Your task to perform on an android device: Open display settings Image 0: 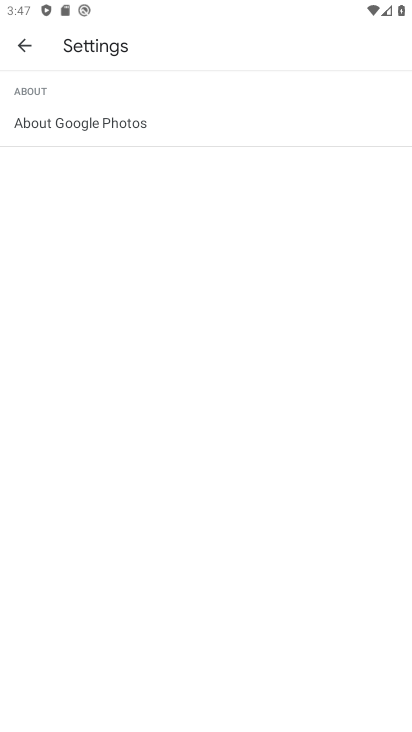
Step 0: press back button
Your task to perform on an android device: Open display settings Image 1: 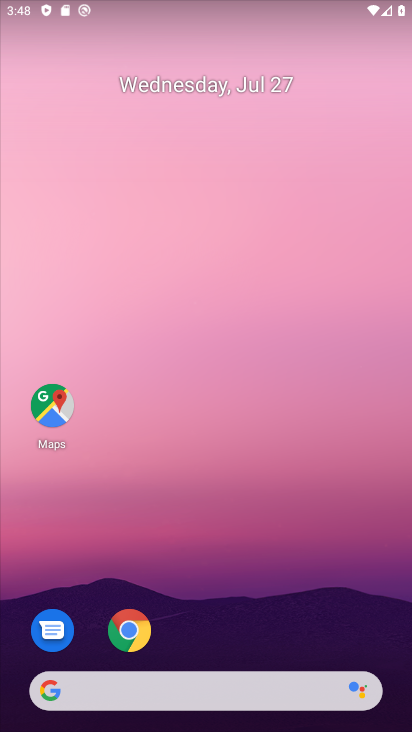
Step 1: drag from (217, 616) to (290, 1)
Your task to perform on an android device: Open display settings Image 2: 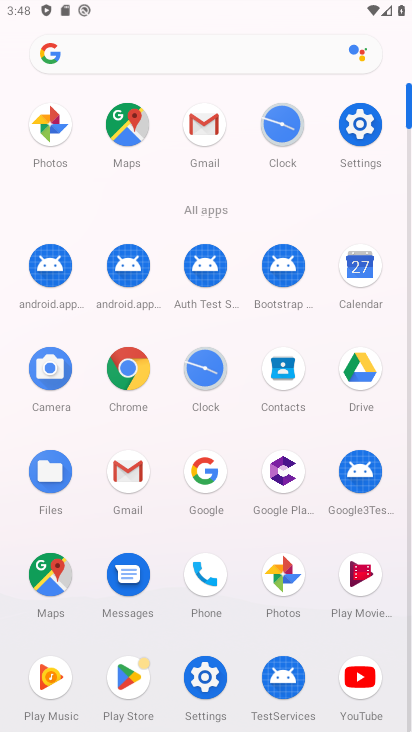
Step 2: click (351, 133)
Your task to perform on an android device: Open display settings Image 3: 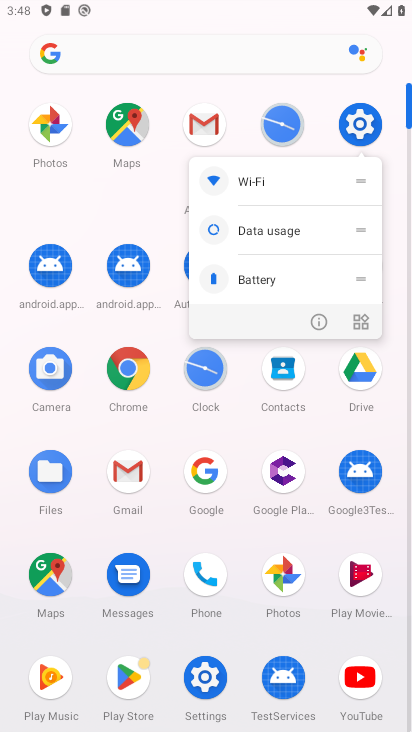
Step 3: click (355, 129)
Your task to perform on an android device: Open display settings Image 4: 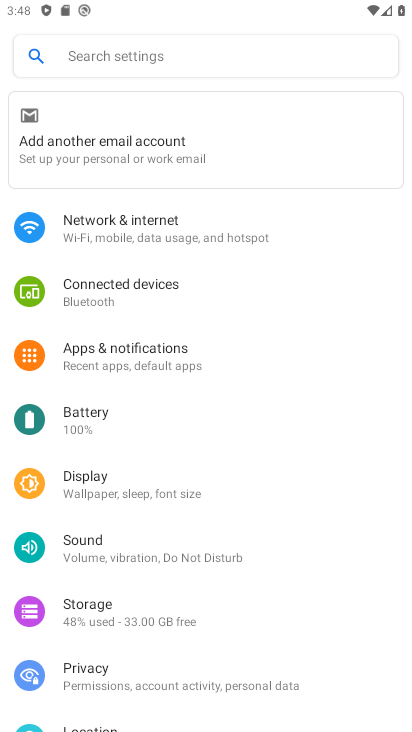
Step 4: click (76, 478)
Your task to perform on an android device: Open display settings Image 5: 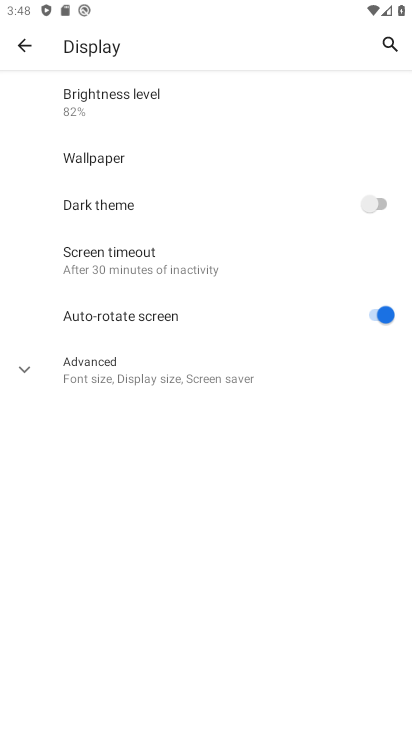
Step 5: click (113, 371)
Your task to perform on an android device: Open display settings Image 6: 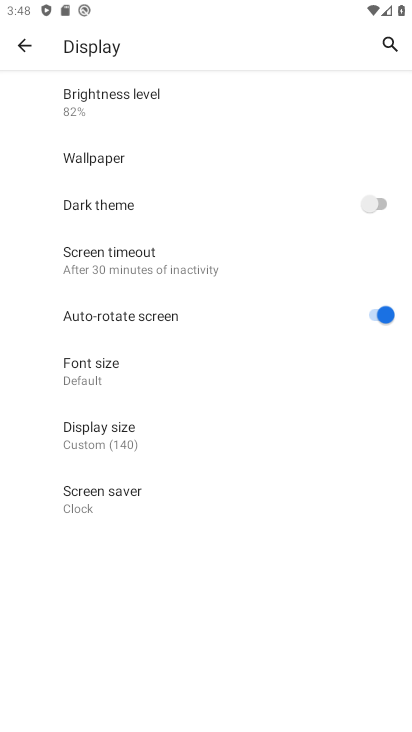
Step 6: click (92, 445)
Your task to perform on an android device: Open display settings Image 7: 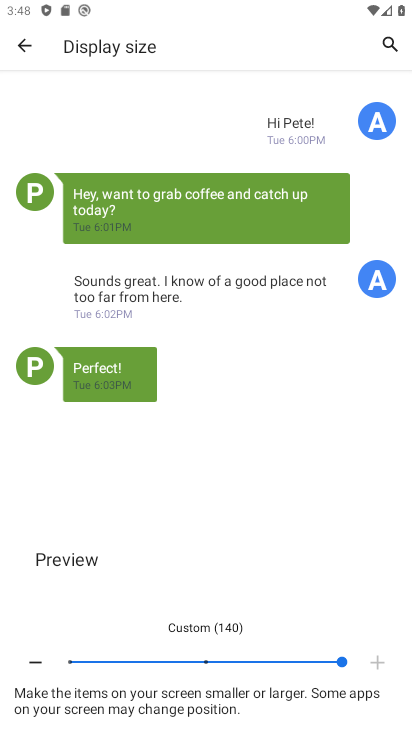
Step 7: click (208, 666)
Your task to perform on an android device: Open display settings Image 8: 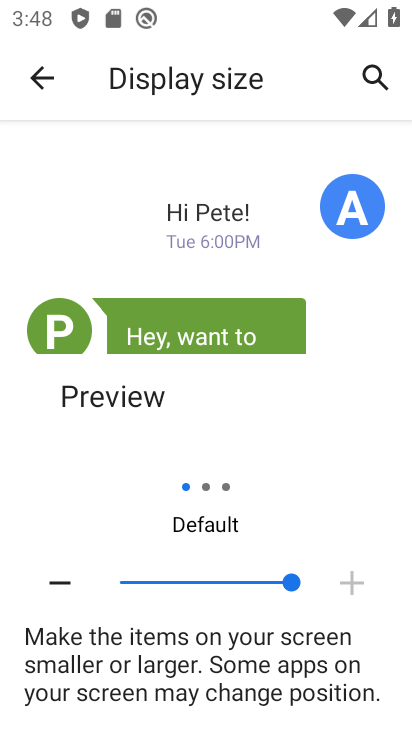
Step 8: task complete